Your task to perform on an android device: change your default location settings in chrome Image 0: 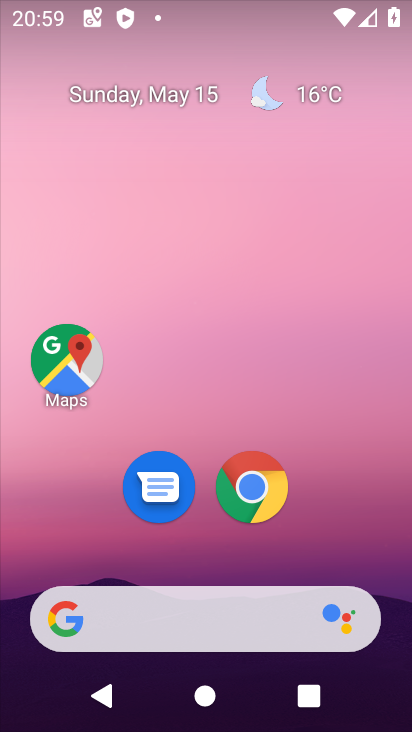
Step 0: click (250, 486)
Your task to perform on an android device: change your default location settings in chrome Image 1: 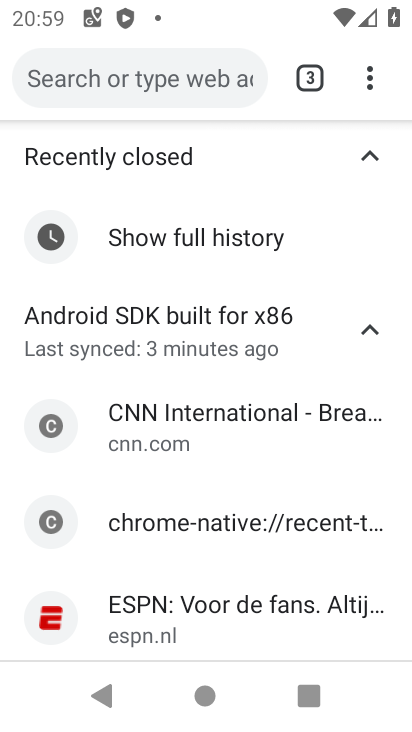
Step 1: click (363, 71)
Your task to perform on an android device: change your default location settings in chrome Image 2: 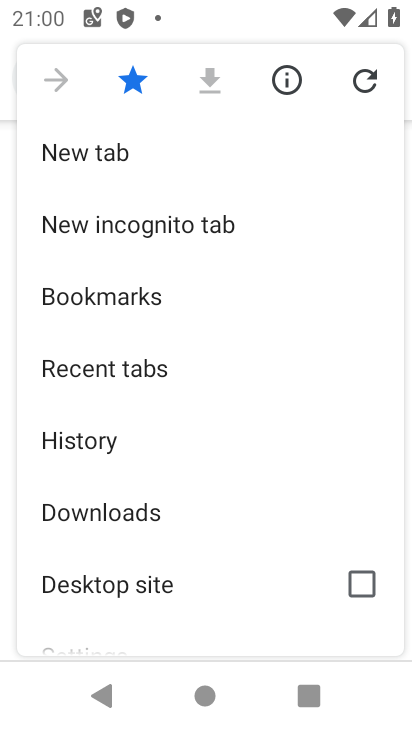
Step 2: drag from (291, 288) to (295, 248)
Your task to perform on an android device: change your default location settings in chrome Image 3: 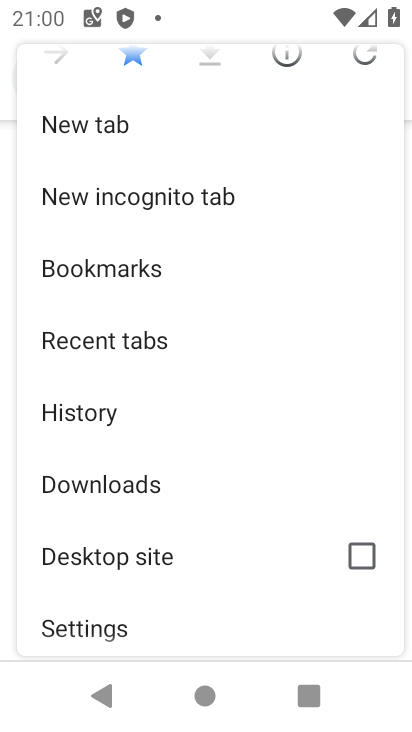
Step 3: click (94, 624)
Your task to perform on an android device: change your default location settings in chrome Image 4: 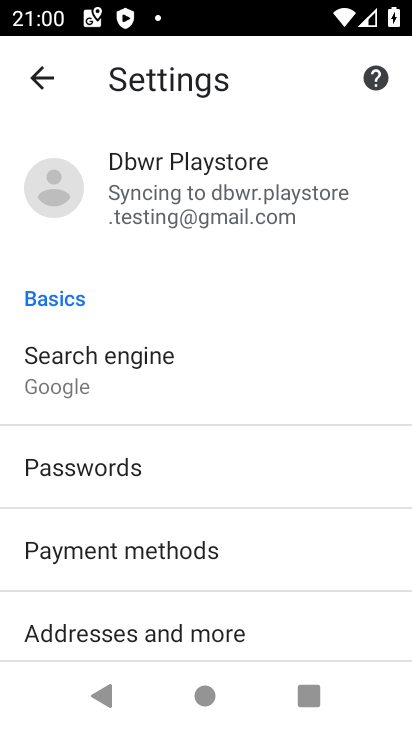
Step 4: drag from (282, 631) to (291, 325)
Your task to perform on an android device: change your default location settings in chrome Image 5: 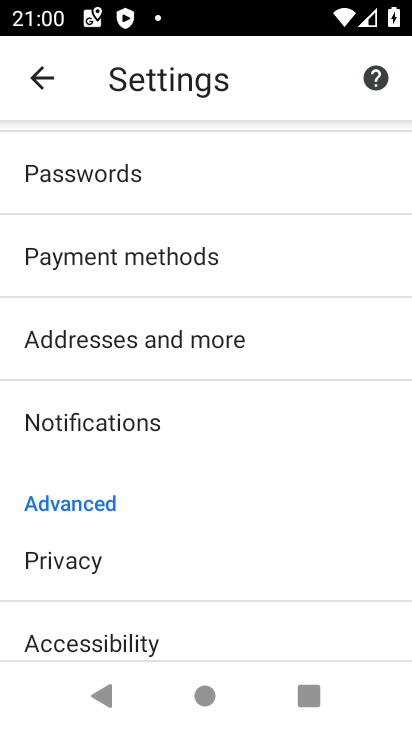
Step 5: drag from (226, 633) to (199, 414)
Your task to perform on an android device: change your default location settings in chrome Image 6: 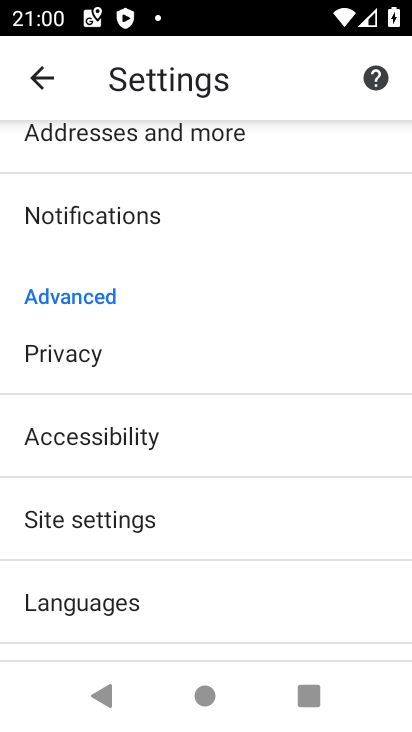
Step 6: click (62, 513)
Your task to perform on an android device: change your default location settings in chrome Image 7: 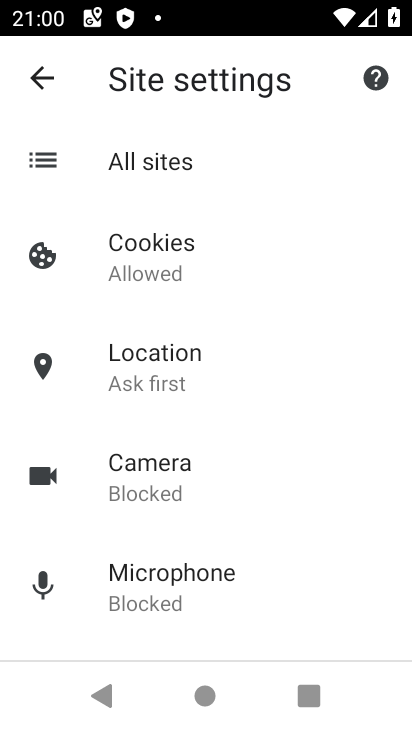
Step 7: click (137, 367)
Your task to perform on an android device: change your default location settings in chrome Image 8: 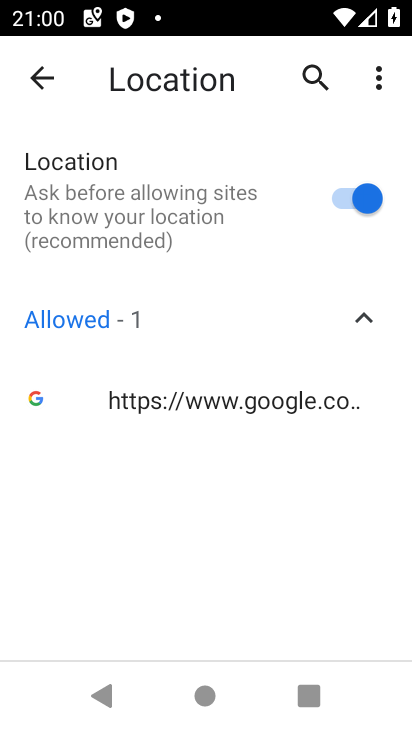
Step 8: task complete